Your task to perform on an android device: What's the news about the US stock market? Image 0: 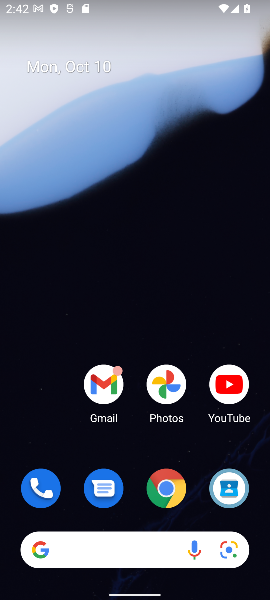
Step 0: drag from (130, 527) to (161, 113)
Your task to perform on an android device: What's the news about the US stock market? Image 1: 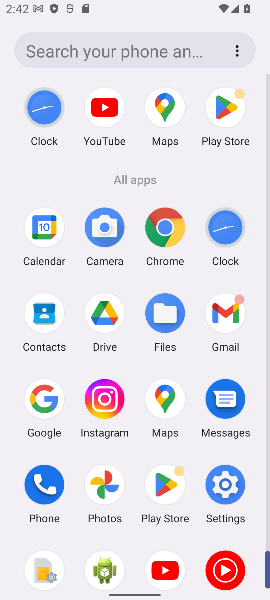
Step 1: click (50, 403)
Your task to perform on an android device: What's the news about the US stock market? Image 2: 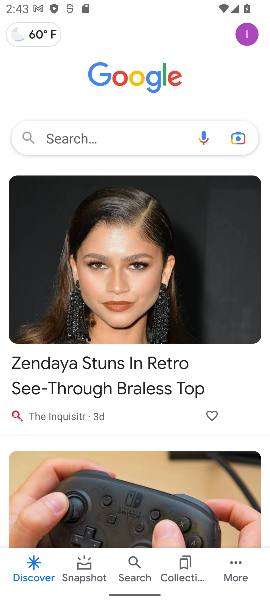
Step 2: click (100, 140)
Your task to perform on an android device: What's the news about the US stock market? Image 3: 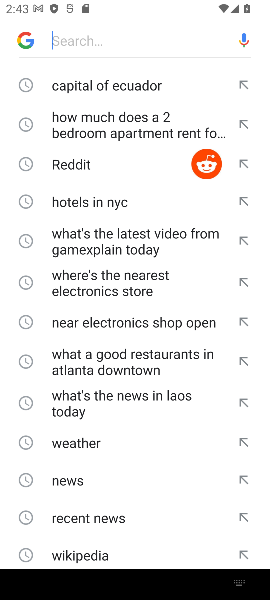
Step 3: type "What's the news about the US stock market?"
Your task to perform on an android device: What's the news about the US stock market? Image 4: 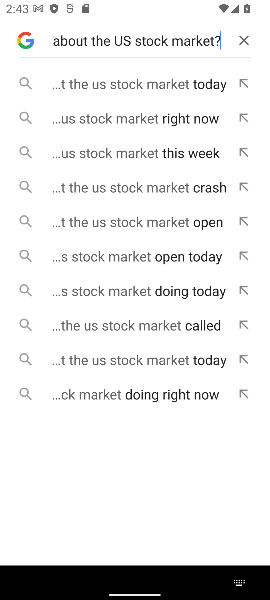
Step 4: click (123, 90)
Your task to perform on an android device: What's the news about the US stock market? Image 5: 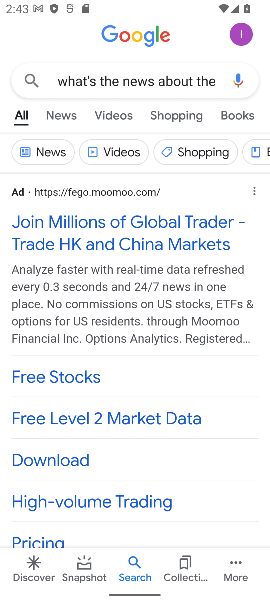
Step 5: task complete